Your task to perform on an android device: open app "The Home Depot" Image 0: 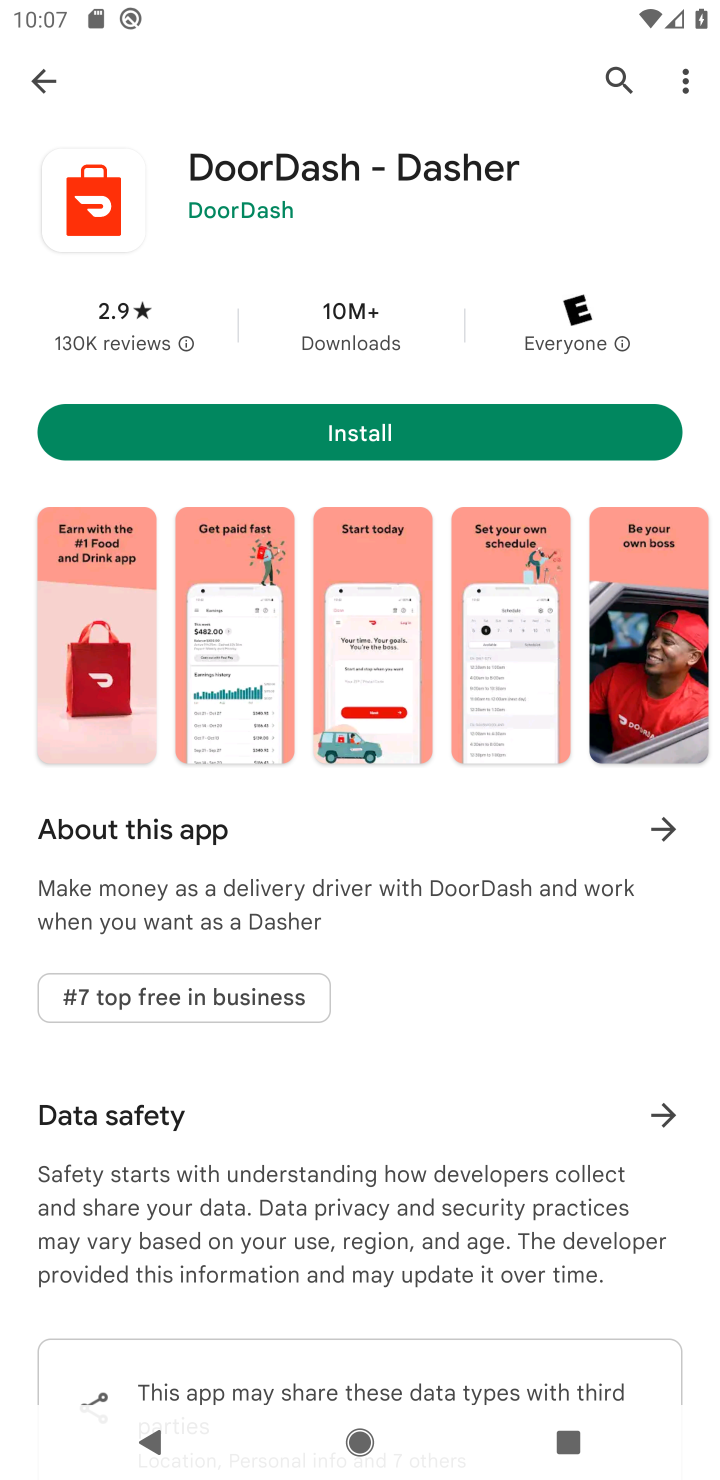
Step 0: press home button
Your task to perform on an android device: open app "The Home Depot" Image 1: 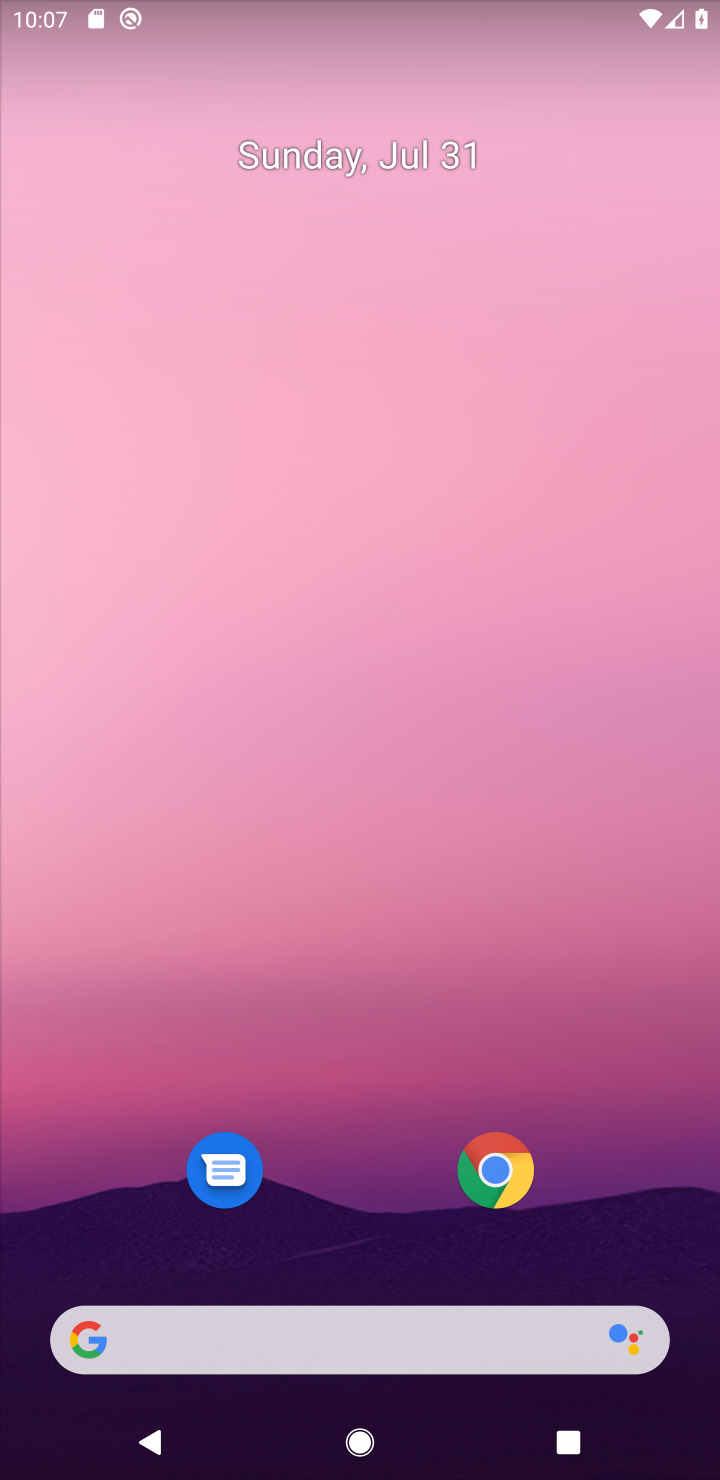
Step 1: drag from (643, 1209) to (489, 170)
Your task to perform on an android device: open app "The Home Depot" Image 2: 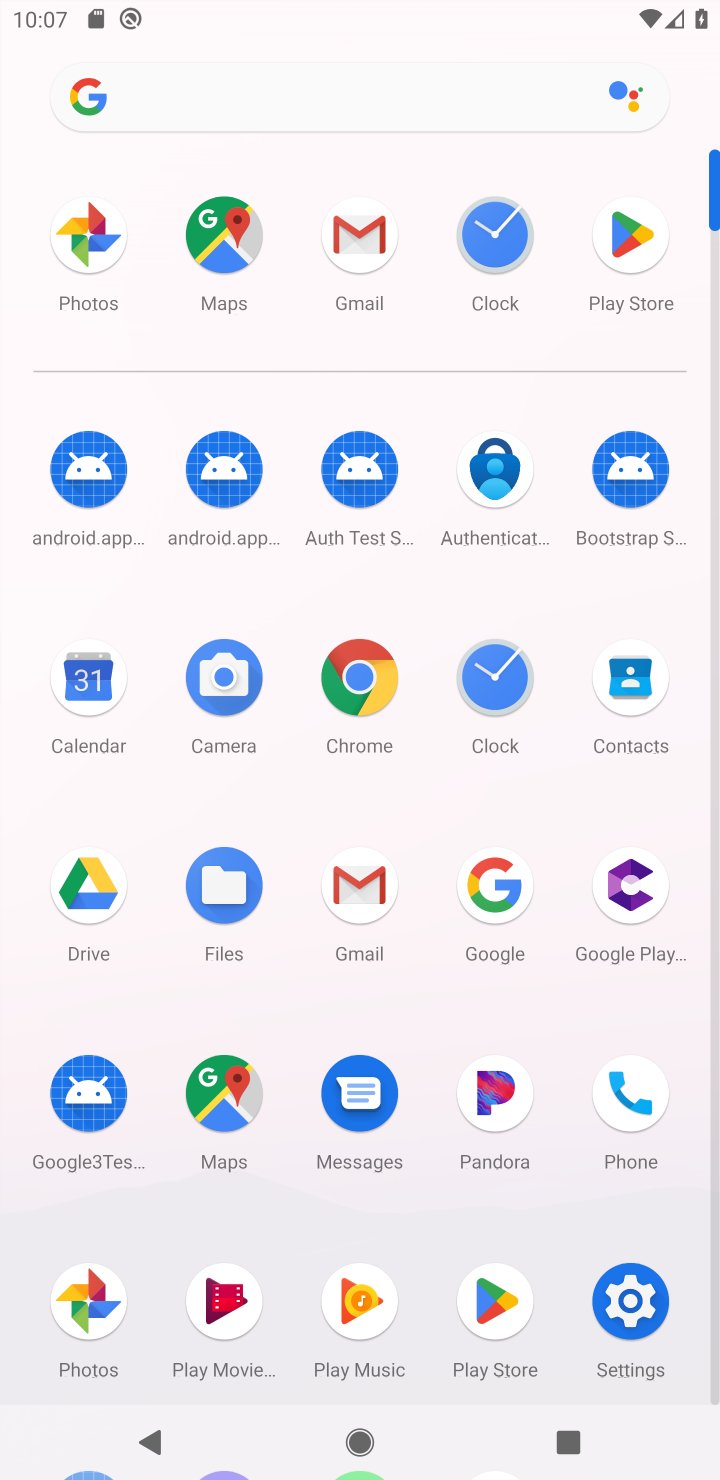
Step 2: click (609, 266)
Your task to perform on an android device: open app "The Home Depot" Image 3: 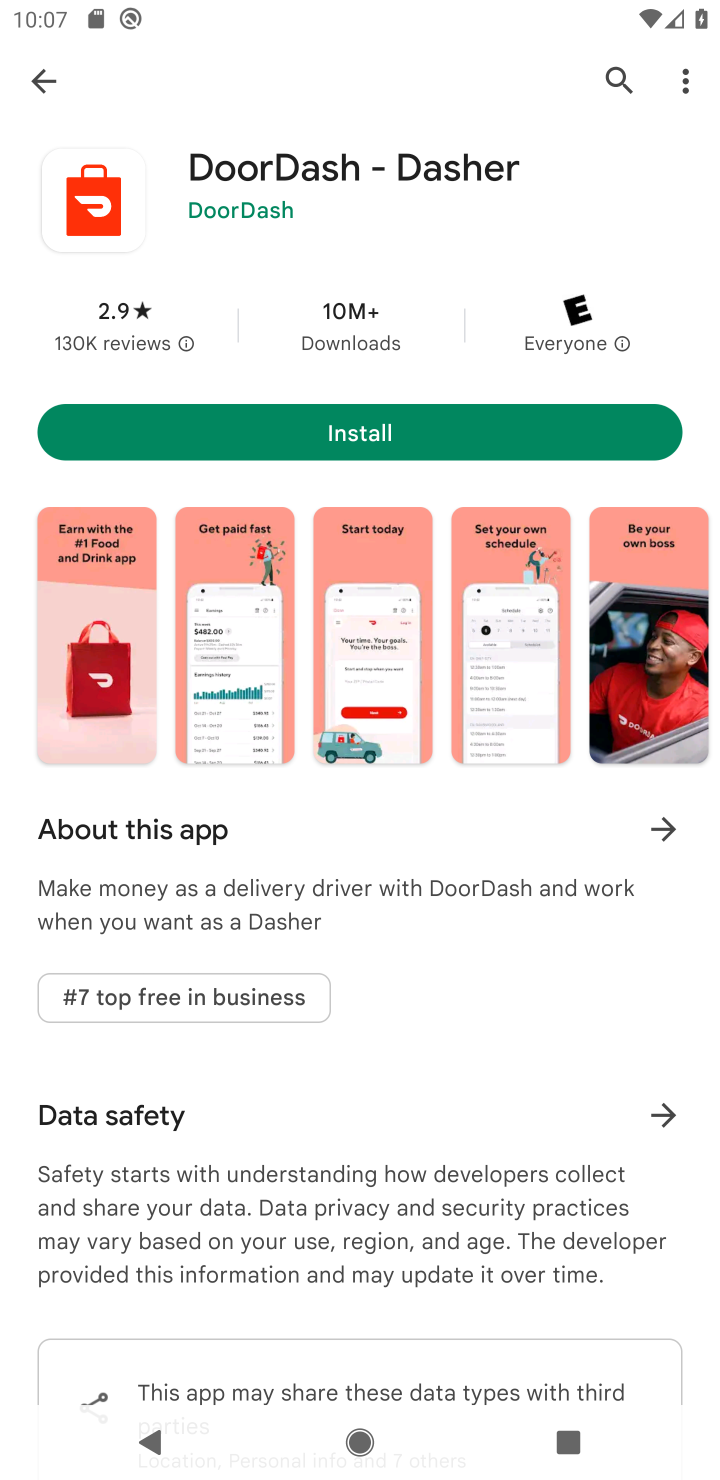
Step 3: press back button
Your task to perform on an android device: open app "The Home Depot" Image 4: 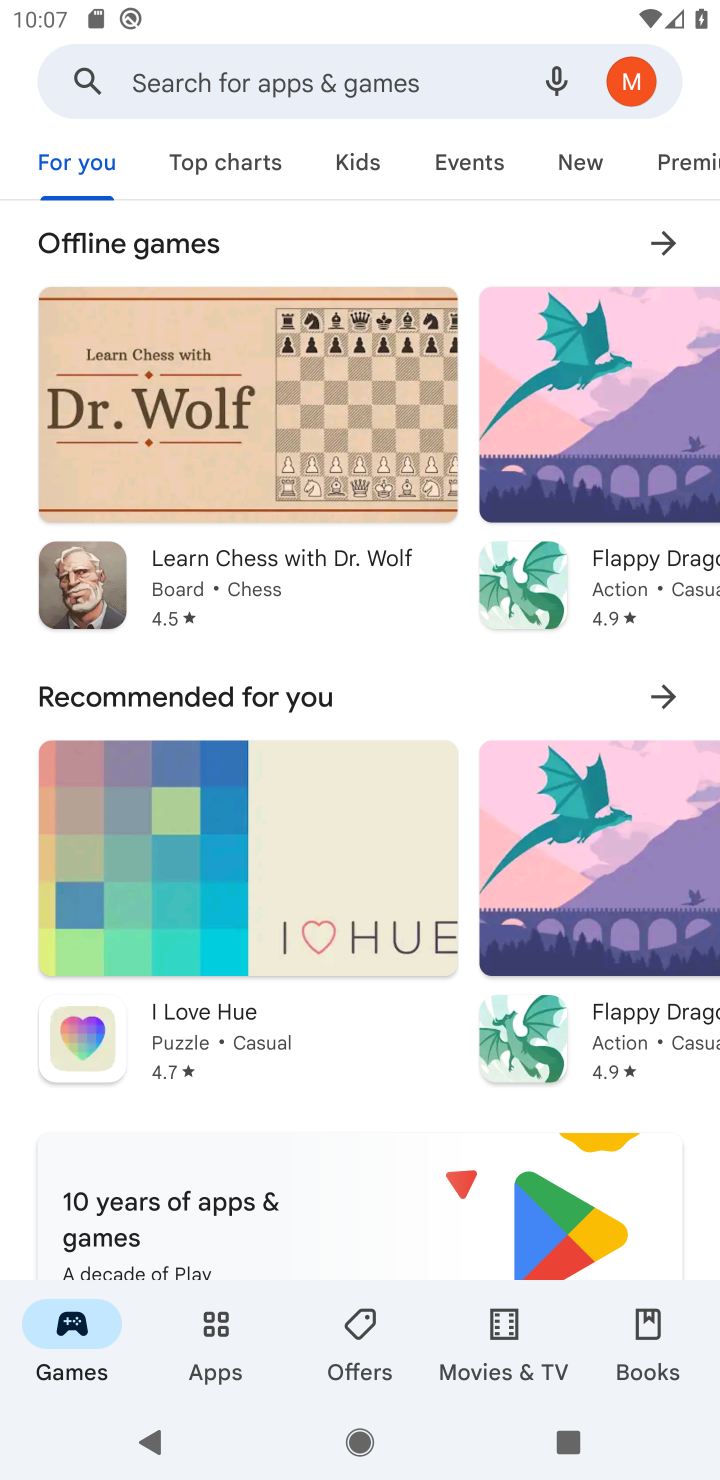
Step 4: click (165, 75)
Your task to perform on an android device: open app "The Home Depot" Image 5: 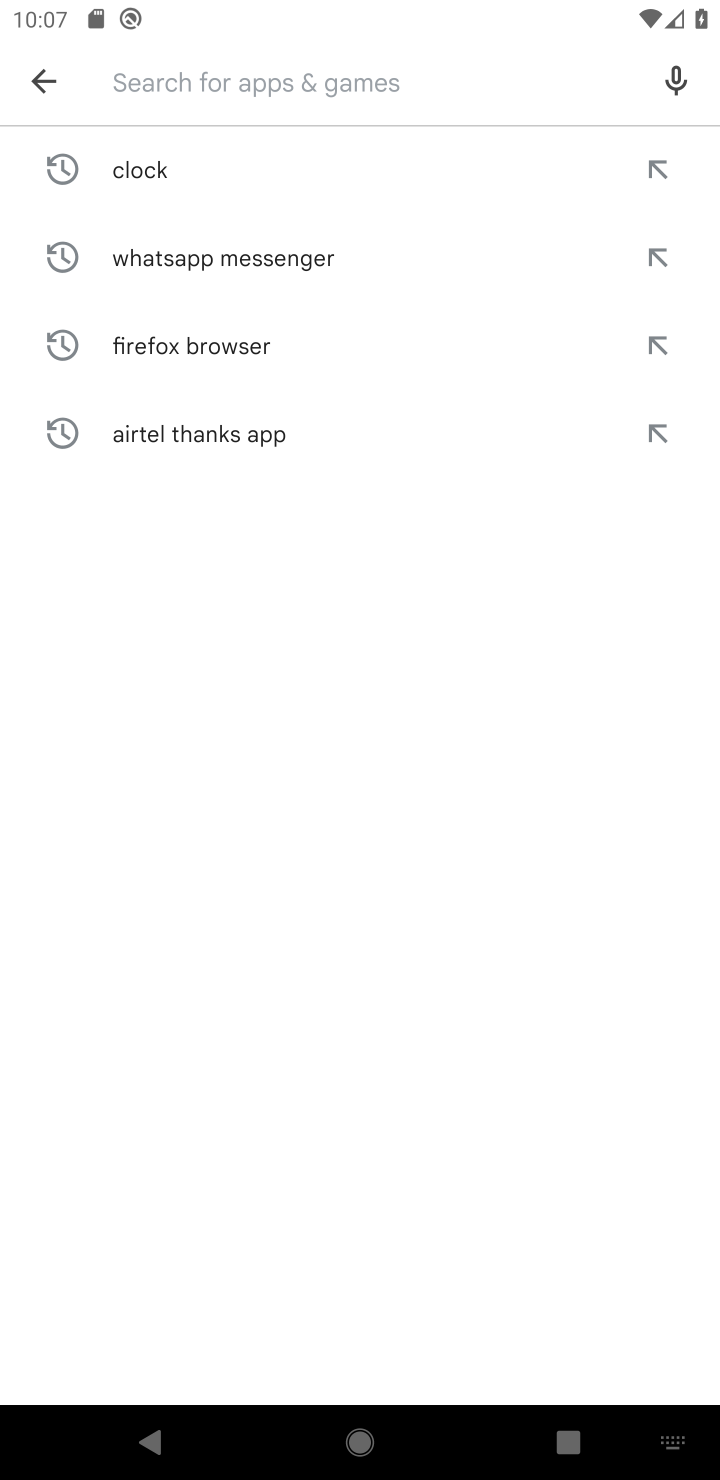
Step 5: type "The Home Depot"
Your task to perform on an android device: open app "The Home Depot" Image 6: 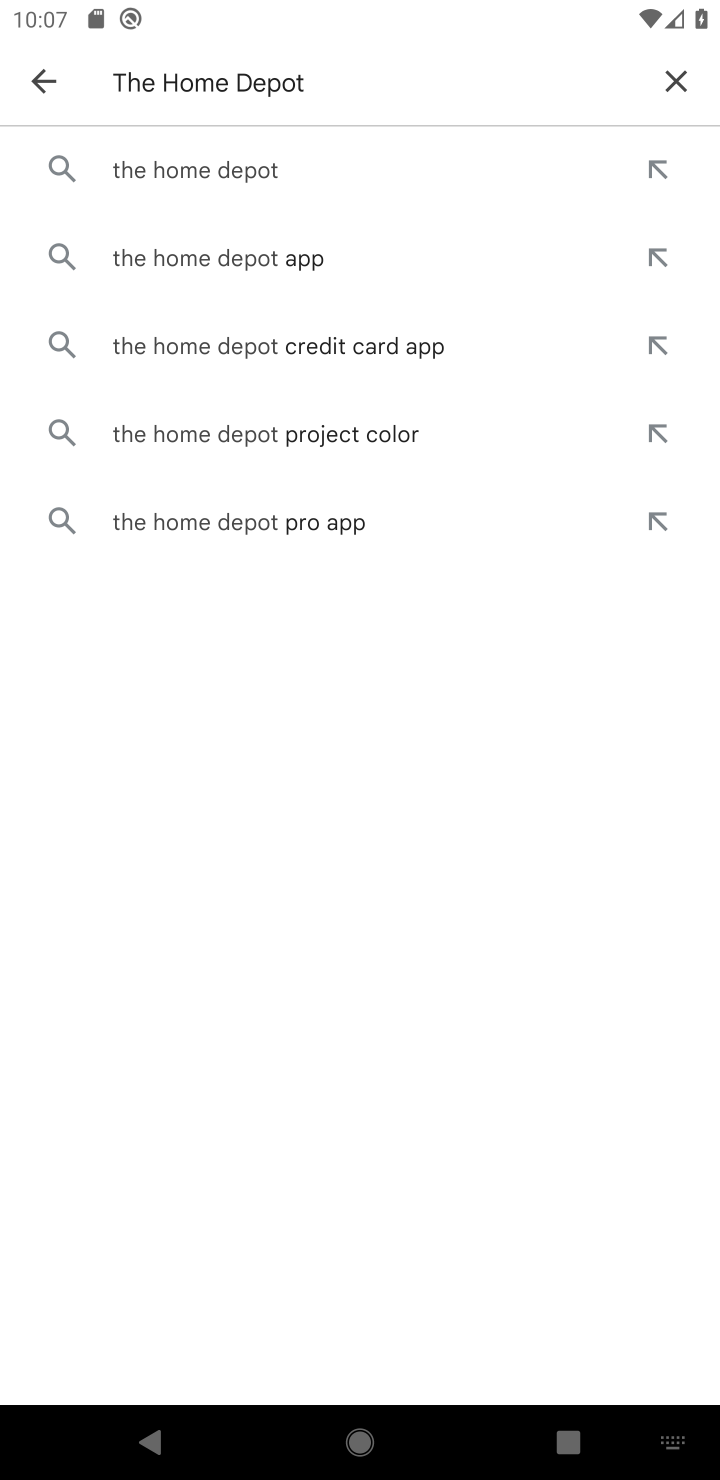
Step 6: click (255, 172)
Your task to perform on an android device: open app "The Home Depot" Image 7: 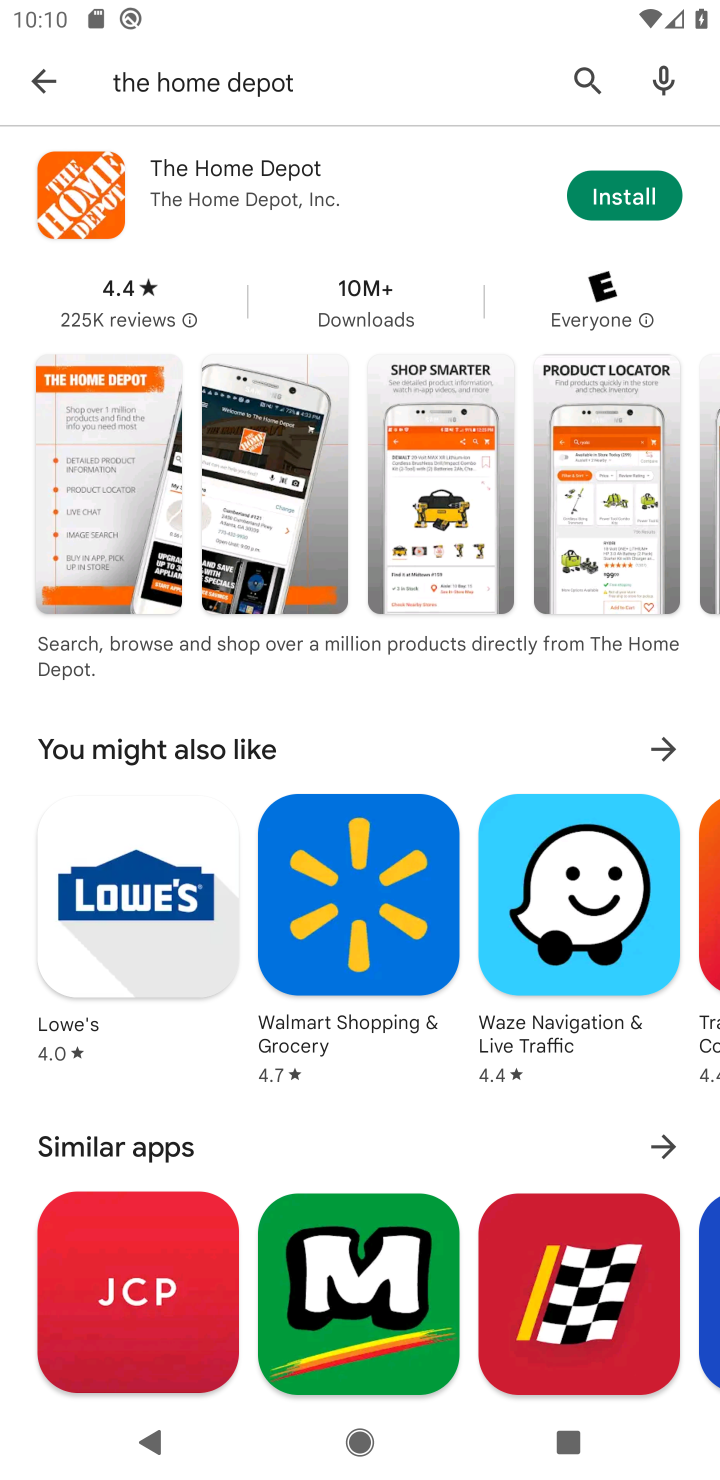
Step 7: task complete